Your task to perform on an android device: Open Wikipedia Image 0: 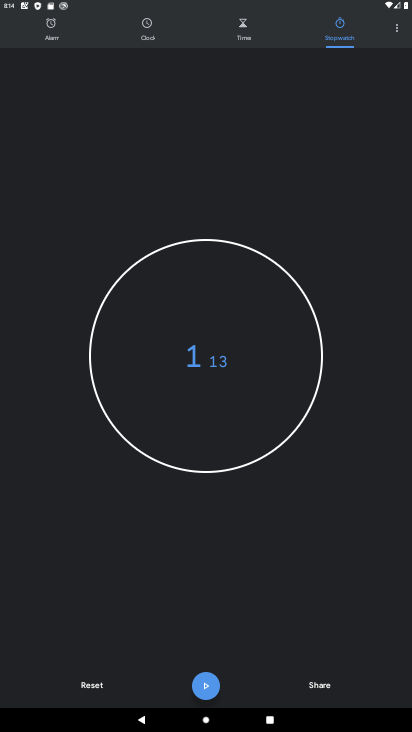
Step 0: press home button
Your task to perform on an android device: Open Wikipedia Image 1: 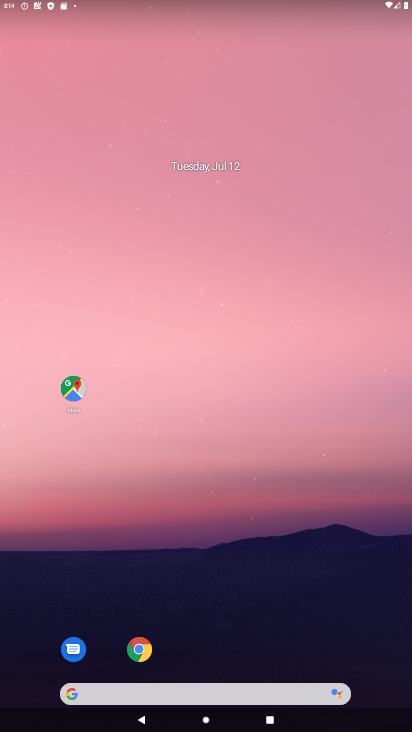
Step 1: drag from (321, 642) to (244, 289)
Your task to perform on an android device: Open Wikipedia Image 2: 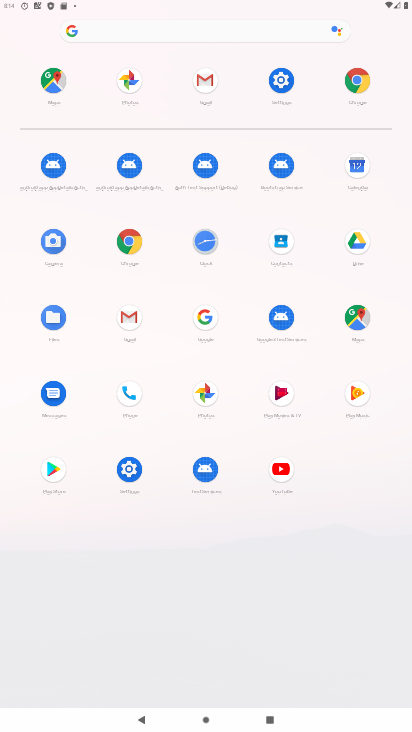
Step 2: click (135, 243)
Your task to perform on an android device: Open Wikipedia Image 3: 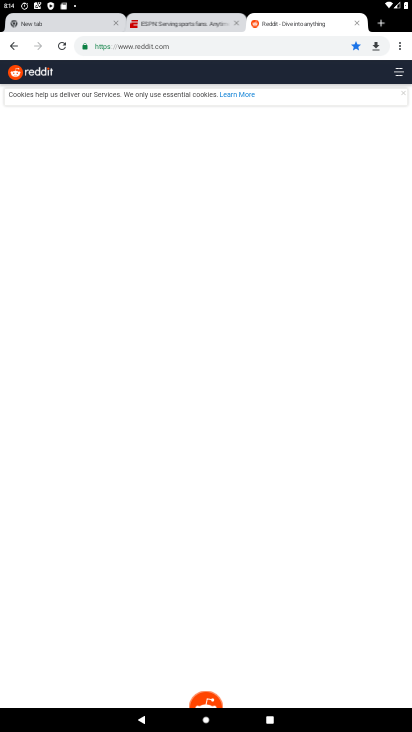
Step 3: click (295, 47)
Your task to perform on an android device: Open Wikipedia Image 4: 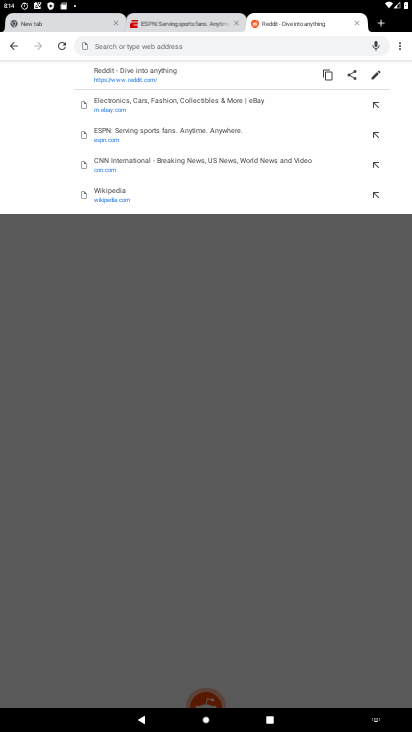
Step 4: type "wikipedia"
Your task to perform on an android device: Open Wikipedia Image 5: 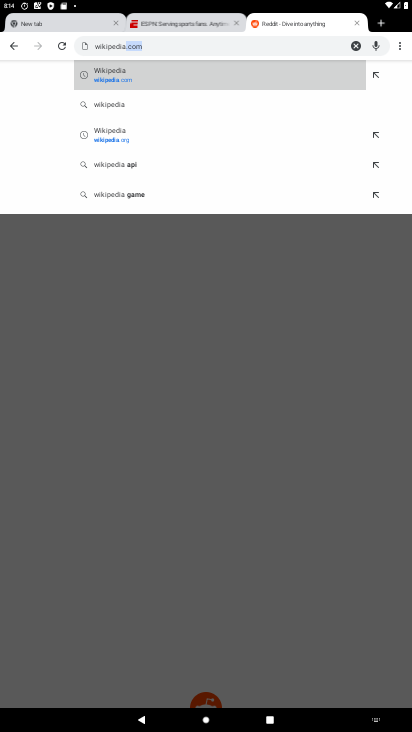
Step 5: click (173, 81)
Your task to perform on an android device: Open Wikipedia Image 6: 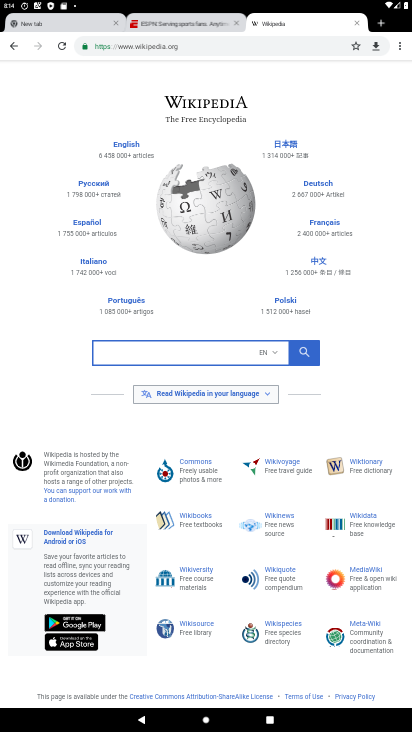
Step 6: task complete